Your task to perform on an android device: add a contact Image 0: 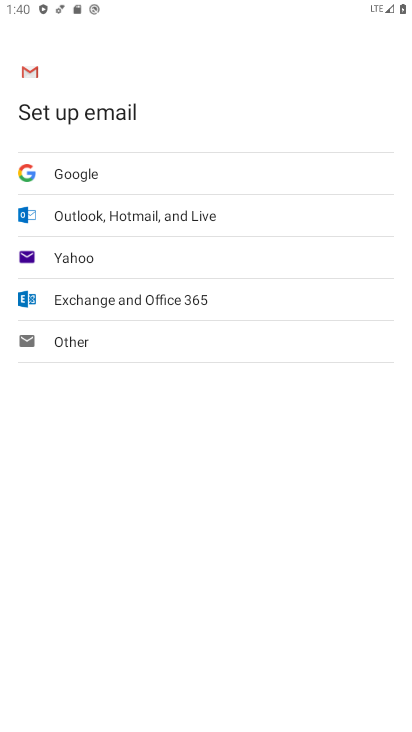
Step 0: press home button
Your task to perform on an android device: add a contact Image 1: 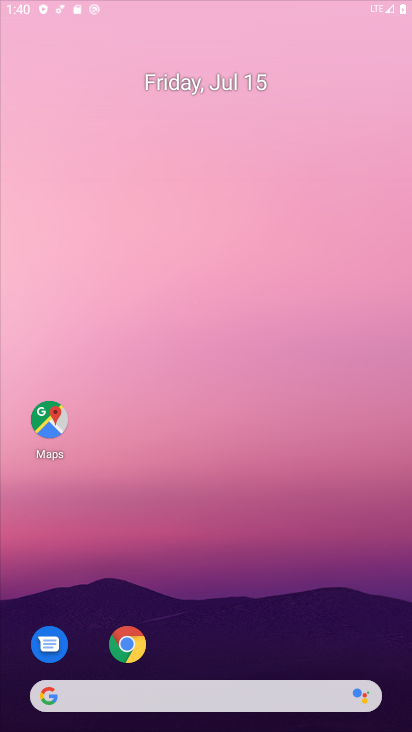
Step 1: drag from (371, 710) to (340, 47)
Your task to perform on an android device: add a contact Image 2: 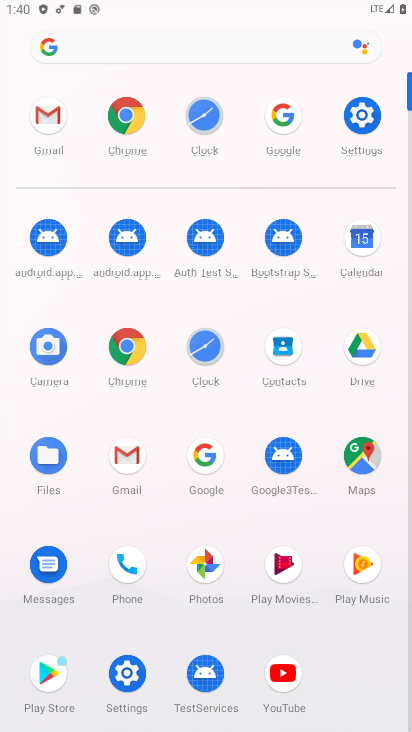
Step 2: click (271, 351)
Your task to perform on an android device: add a contact Image 3: 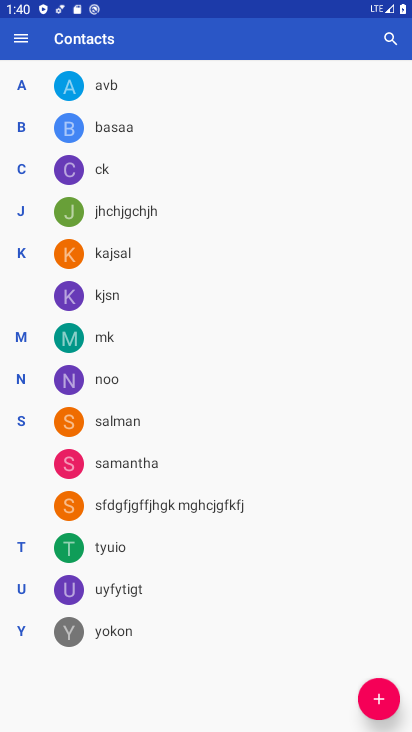
Step 3: click (377, 702)
Your task to perform on an android device: add a contact Image 4: 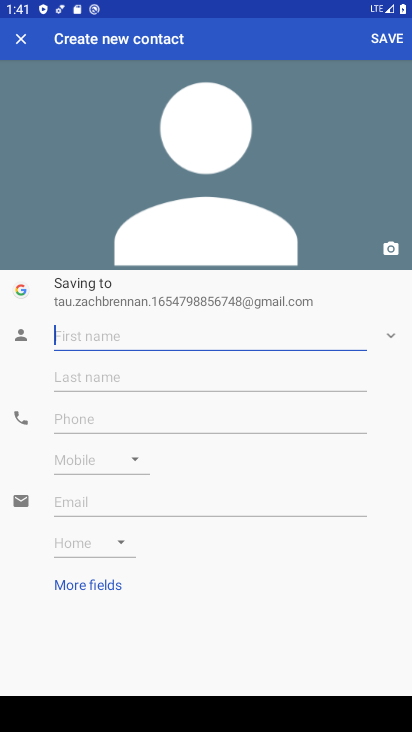
Step 4: type "komal"
Your task to perform on an android device: add a contact Image 5: 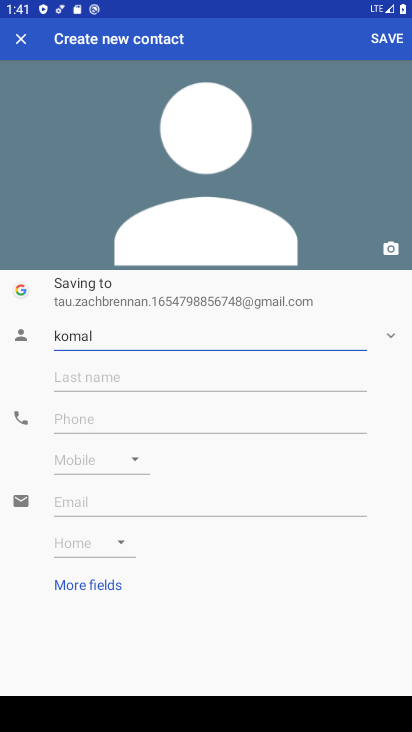
Step 5: click (377, 36)
Your task to perform on an android device: add a contact Image 6: 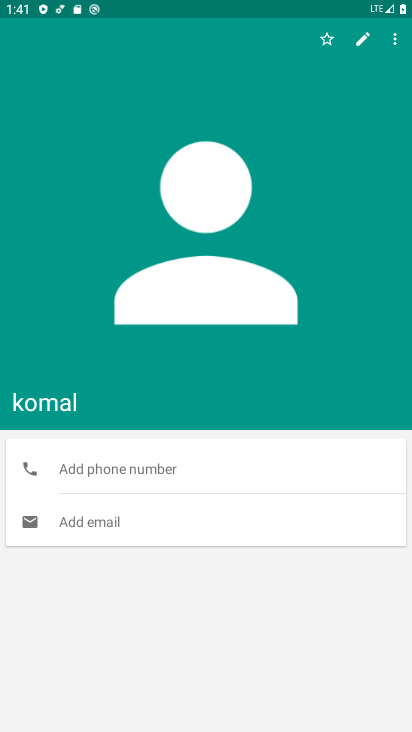
Step 6: task complete